Your task to perform on an android device: Open Google Maps Image 0: 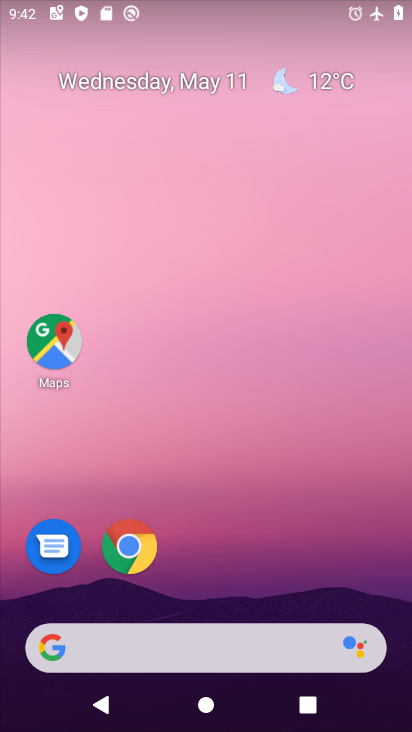
Step 0: click (54, 340)
Your task to perform on an android device: Open Google Maps Image 1: 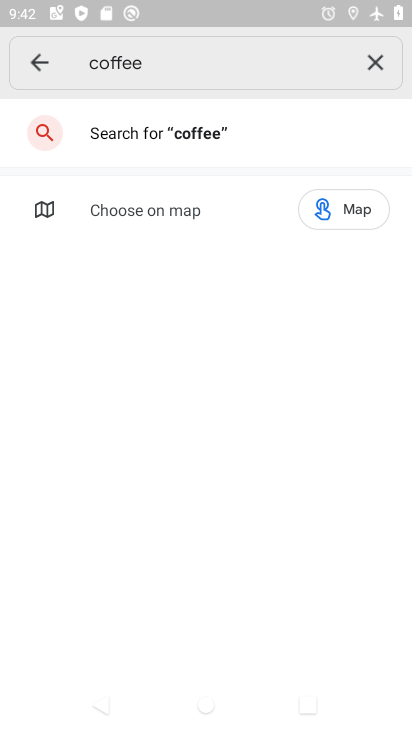
Step 1: click (371, 57)
Your task to perform on an android device: Open Google Maps Image 2: 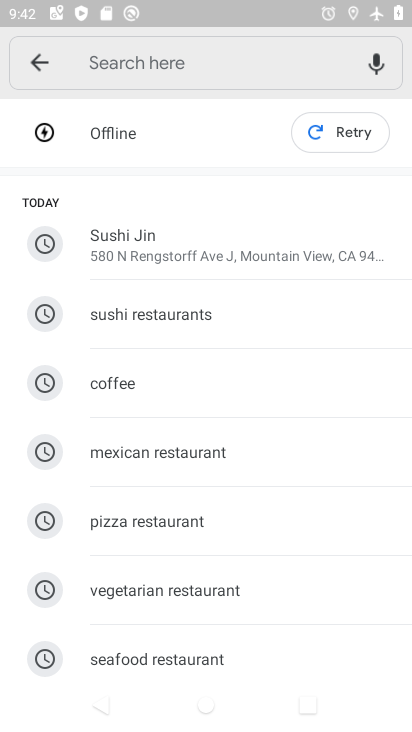
Step 2: task complete